Your task to perform on an android device: open device folders in google photos Image 0: 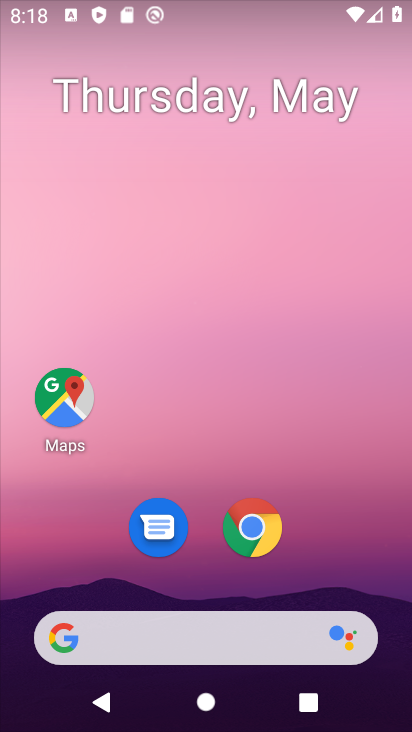
Step 0: drag from (13, 614) to (145, 186)
Your task to perform on an android device: open device folders in google photos Image 1: 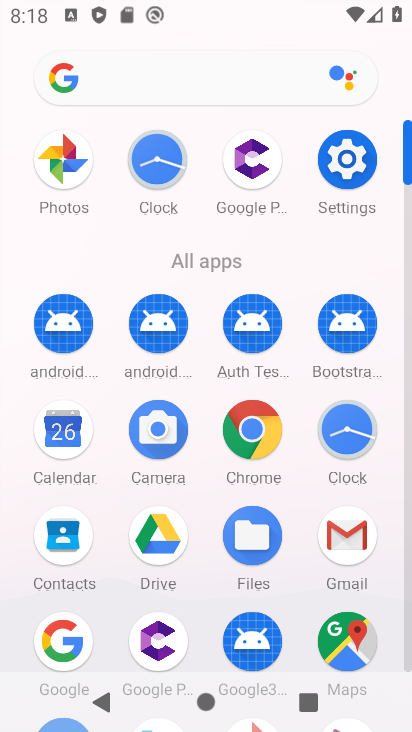
Step 1: click (59, 158)
Your task to perform on an android device: open device folders in google photos Image 2: 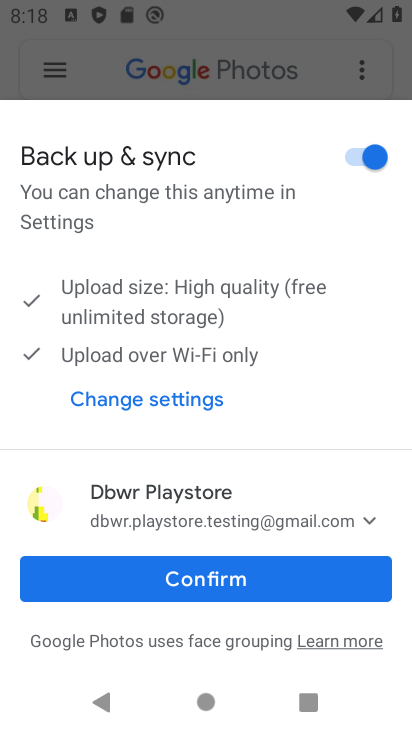
Step 2: click (211, 575)
Your task to perform on an android device: open device folders in google photos Image 3: 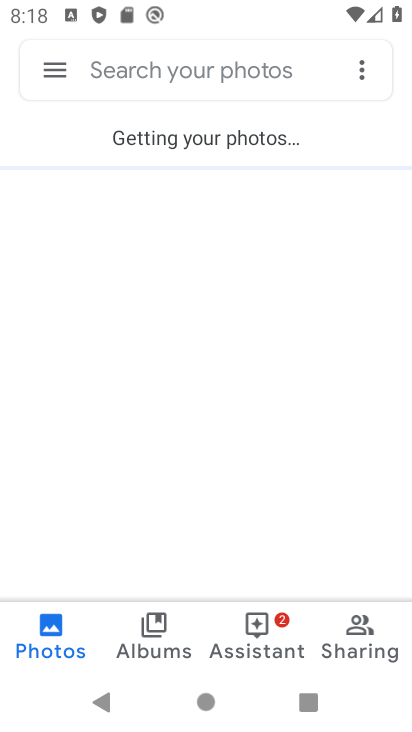
Step 3: click (60, 63)
Your task to perform on an android device: open device folders in google photos Image 4: 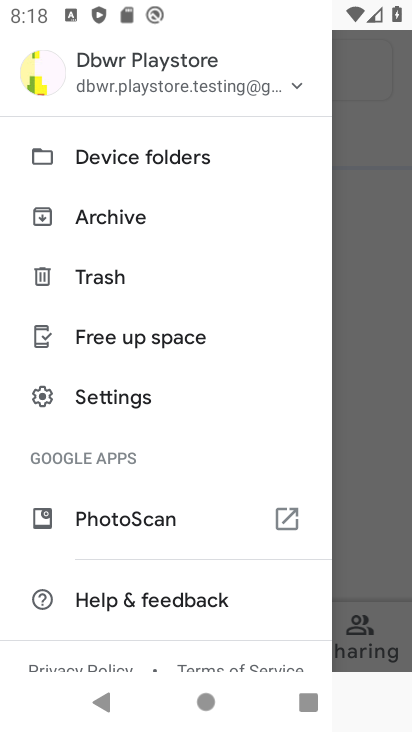
Step 4: click (94, 164)
Your task to perform on an android device: open device folders in google photos Image 5: 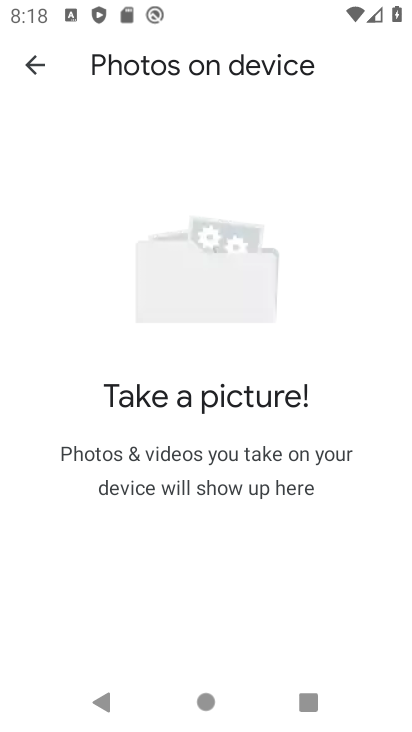
Step 5: task complete